Your task to perform on an android device: Open settings Image 0: 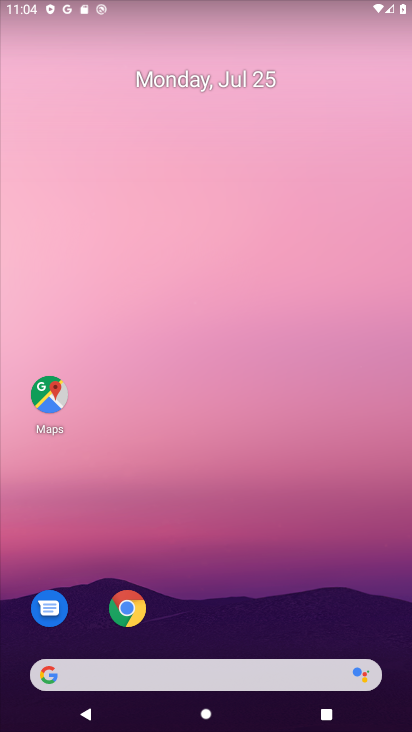
Step 0: drag from (224, 555) to (408, 232)
Your task to perform on an android device: Open settings Image 1: 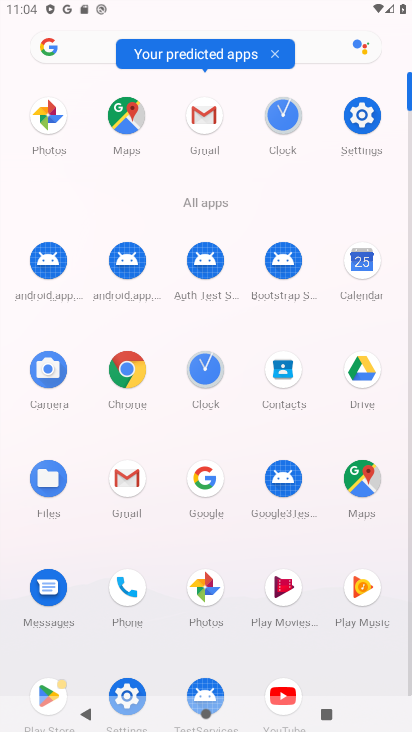
Step 1: click (363, 140)
Your task to perform on an android device: Open settings Image 2: 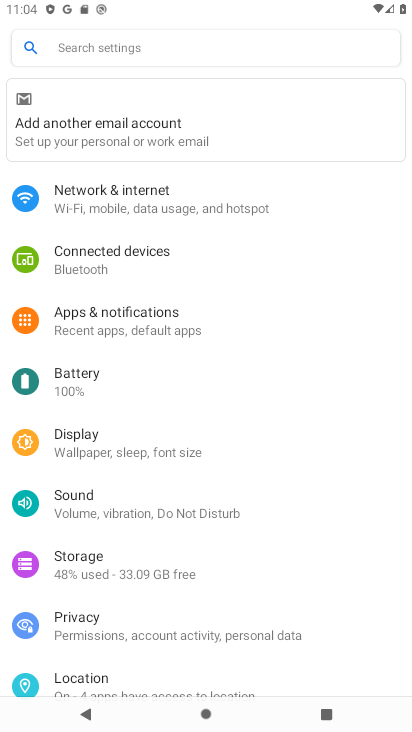
Step 2: task complete